Your task to perform on an android device: Open Yahoo.com Image 0: 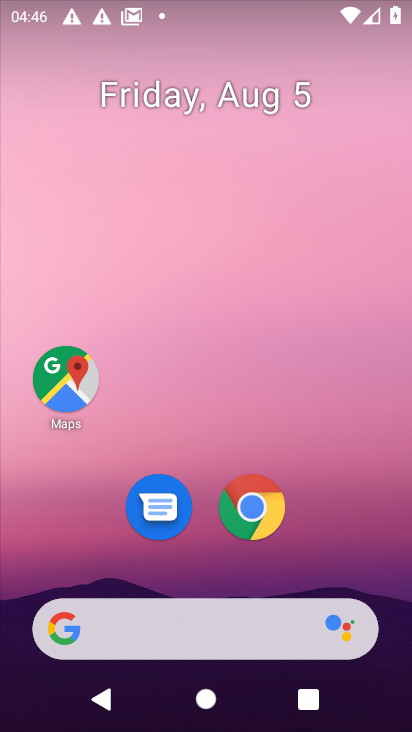
Step 0: click (249, 503)
Your task to perform on an android device: Open Yahoo.com Image 1: 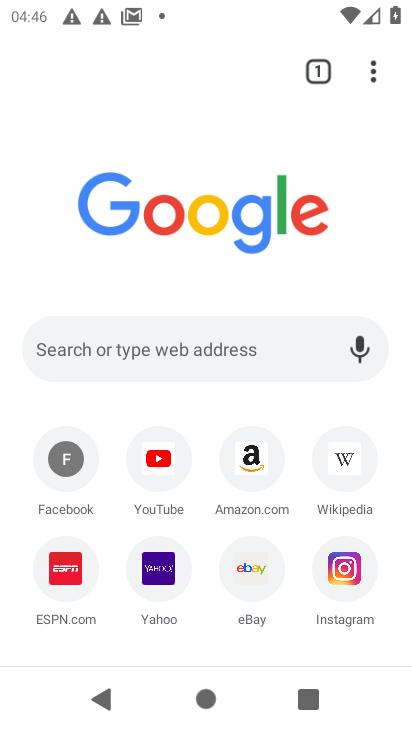
Step 1: click (167, 563)
Your task to perform on an android device: Open Yahoo.com Image 2: 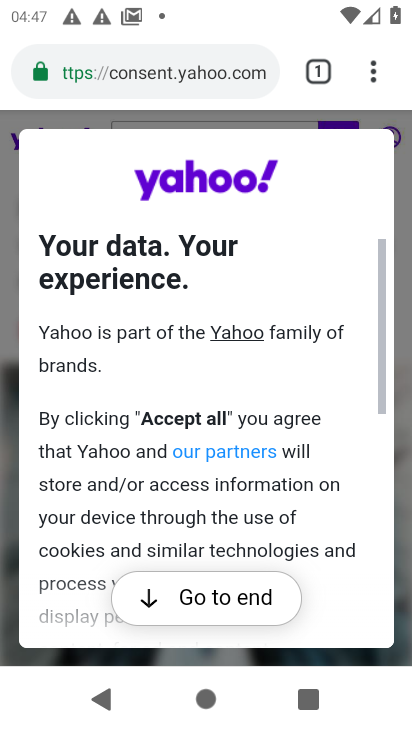
Step 2: task complete